Your task to perform on an android device: turn on airplane mode Image 0: 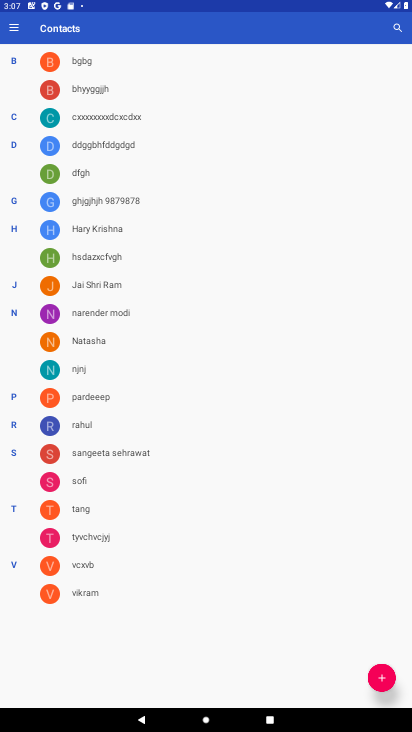
Step 0: press home button
Your task to perform on an android device: turn on airplane mode Image 1: 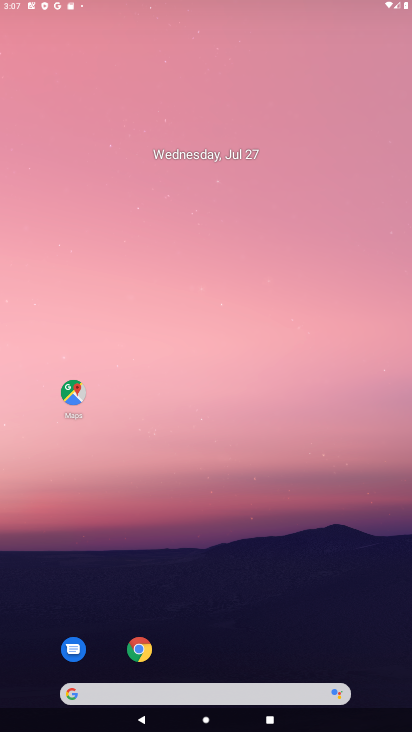
Step 1: drag from (324, 9) to (361, 566)
Your task to perform on an android device: turn on airplane mode Image 2: 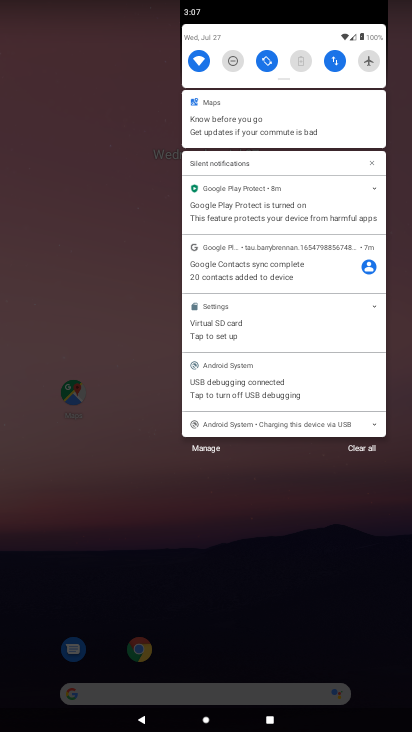
Step 2: click (372, 60)
Your task to perform on an android device: turn on airplane mode Image 3: 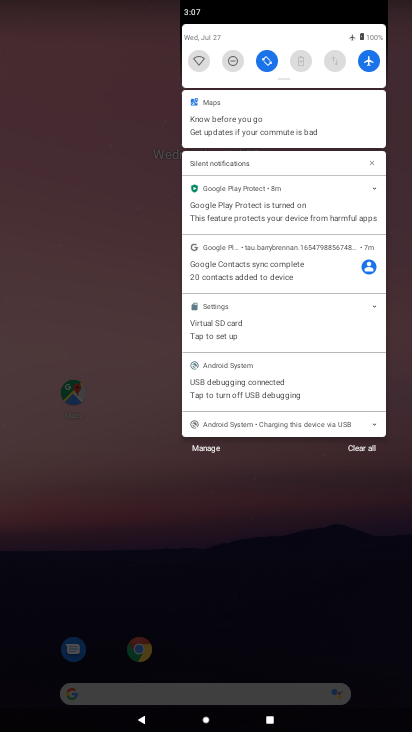
Step 3: click (235, 683)
Your task to perform on an android device: turn on airplane mode Image 4: 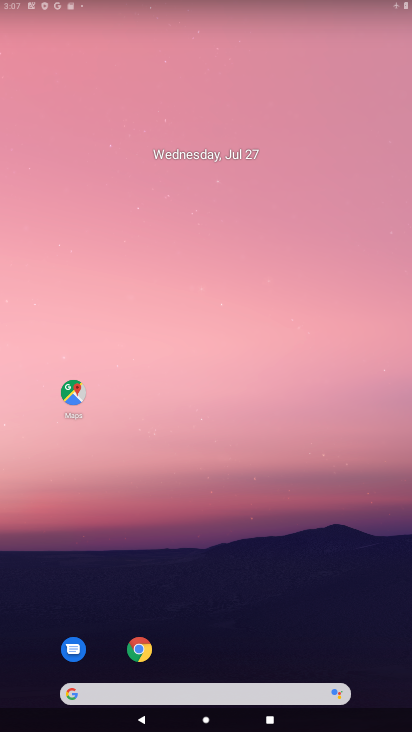
Step 4: click (260, 590)
Your task to perform on an android device: turn on airplane mode Image 5: 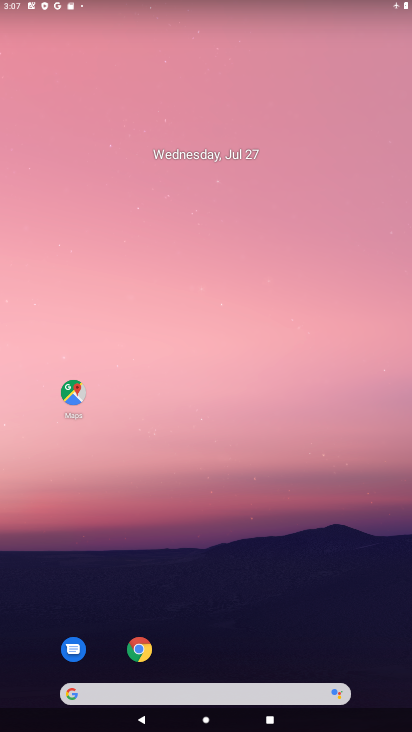
Step 5: task complete